Your task to perform on an android device: choose inbox layout in the gmail app Image 0: 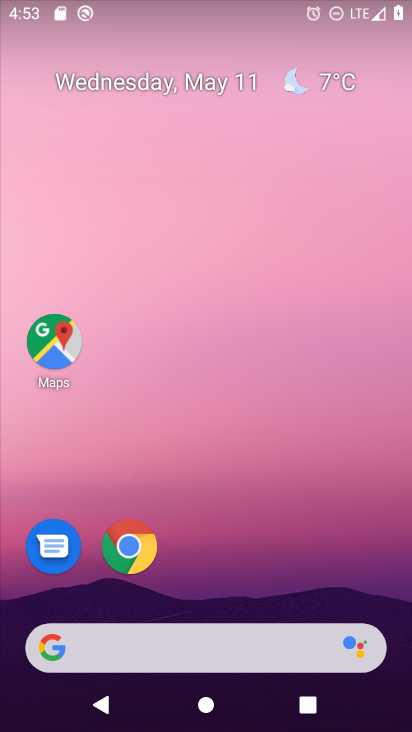
Step 0: drag from (289, 632) to (326, 115)
Your task to perform on an android device: choose inbox layout in the gmail app Image 1: 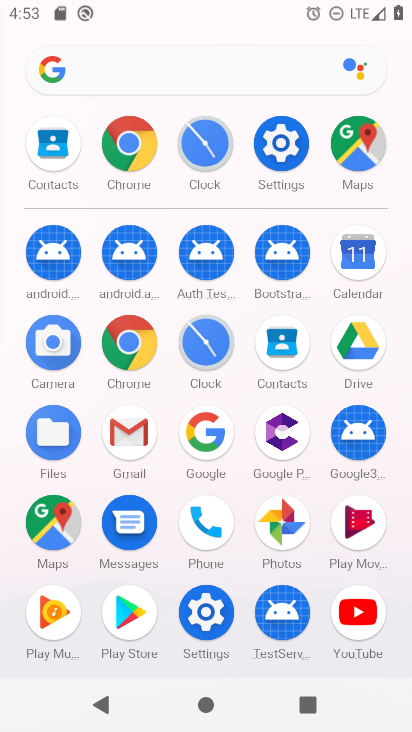
Step 1: click (133, 442)
Your task to perform on an android device: choose inbox layout in the gmail app Image 2: 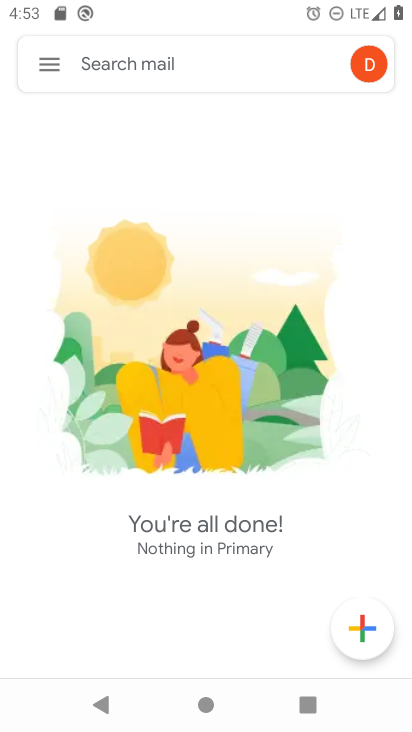
Step 2: click (55, 58)
Your task to perform on an android device: choose inbox layout in the gmail app Image 3: 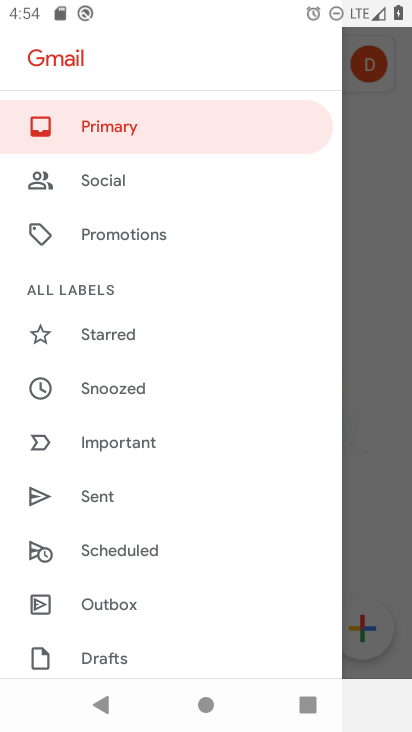
Step 3: drag from (178, 677) to (296, 2)
Your task to perform on an android device: choose inbox layout in the gmail app Image 4: 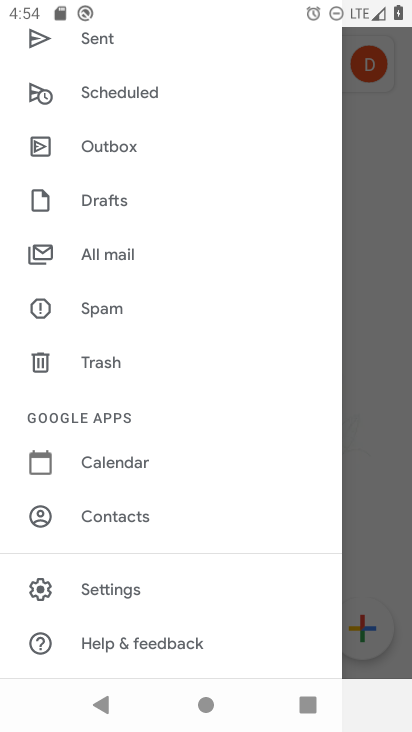
Step 4: click (139, 588)
Your task to perform on an android device: choose inbox layout in the gmail app Image 5: 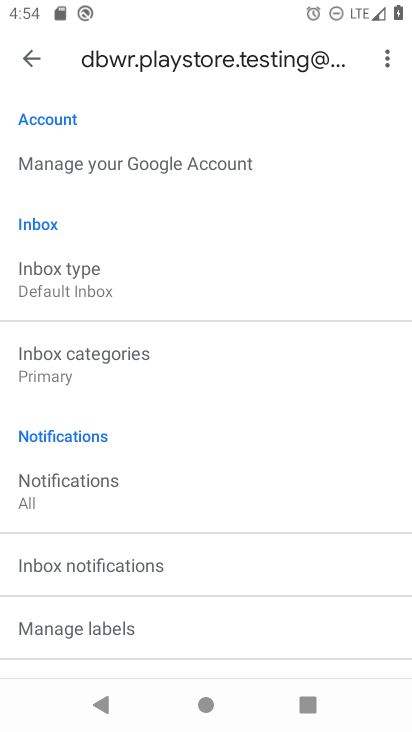
Step 5: drag from (276, 661) to (279, 701)
Your task to perform on an android device: choose inbox layout in the gmail app Image 6: 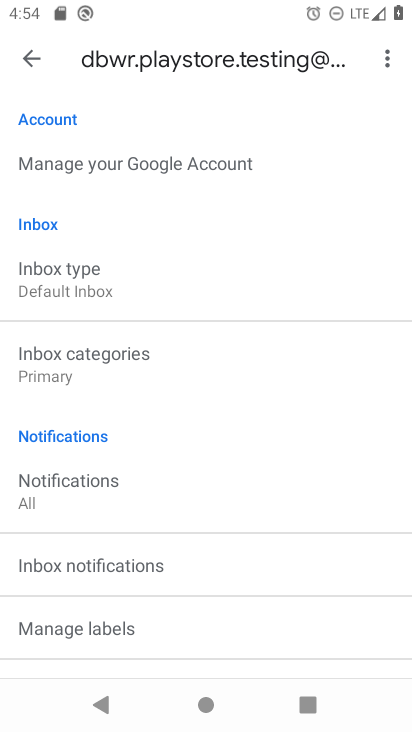
Step 6: click (137, 299)
Your task to perform on an android device: choose inbox layout in the gmail app Image 7: 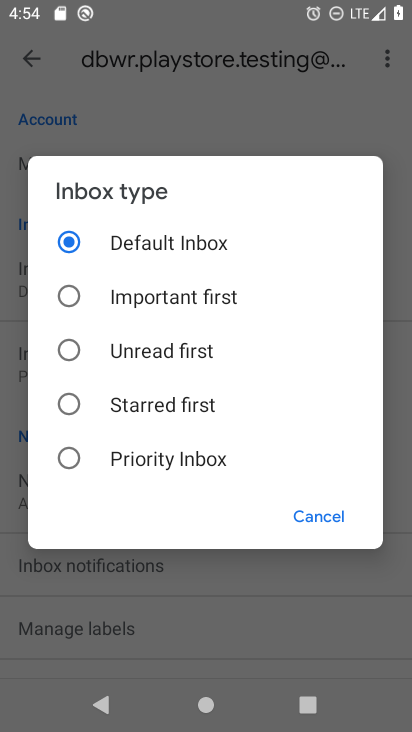
Step 7: click (206, 296)
Your task to perform on an android device: choose inbox layout in the gmail app Image 8: 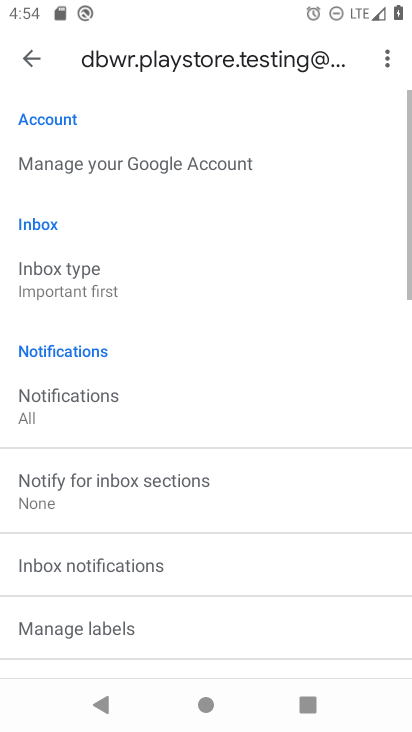
Step 8: task complete